Your task to perform on an android device: add a contact Image 0: 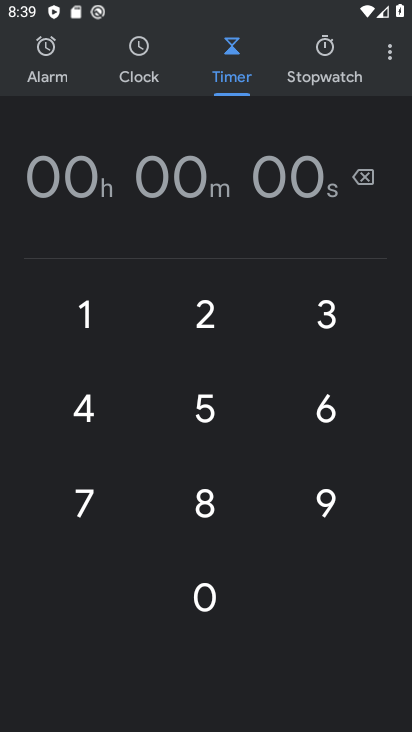
Step 0: press home button
Your task to perform on an android device: add a contact Image 1: 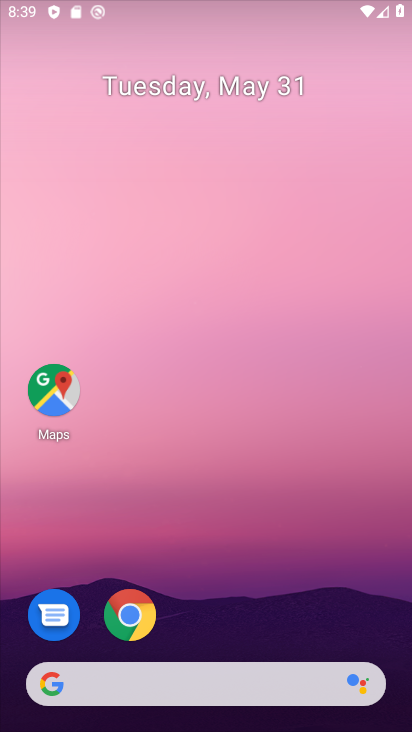
Step 1: drag from (323, 616) to (295, 170)
Your task to perform on an android device: add a contact Image 2: 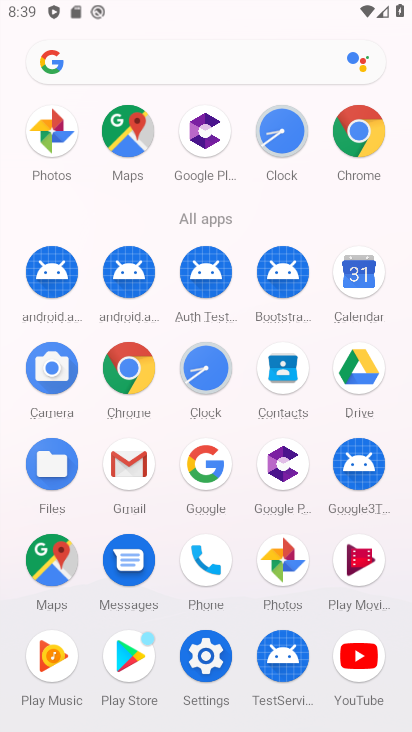
Step 2: click (289, 368)
Your task to perform on an android device: add a contact Image 3: 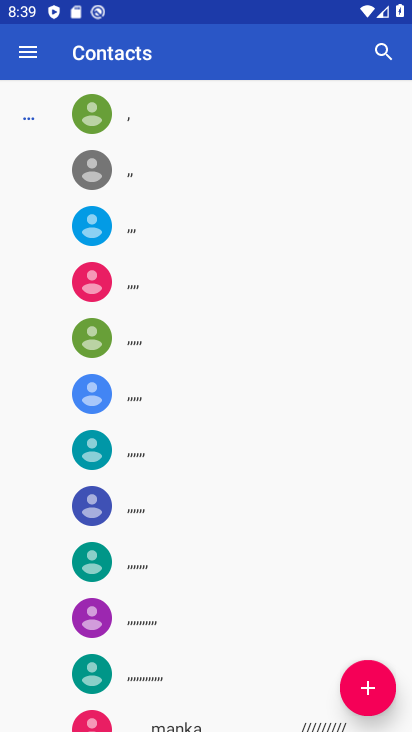
Step 3: click (358, 681)
Your task to perform on an android device: add a contact Image 4: 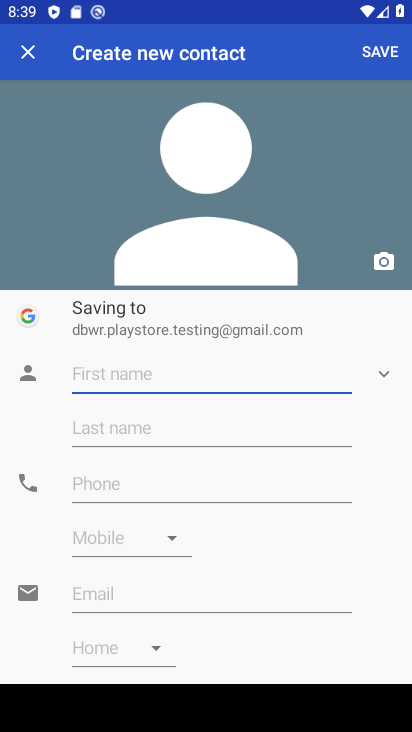
Step 4: click (111, 373)
Your task to perform on an android device: add a contact Image 5: 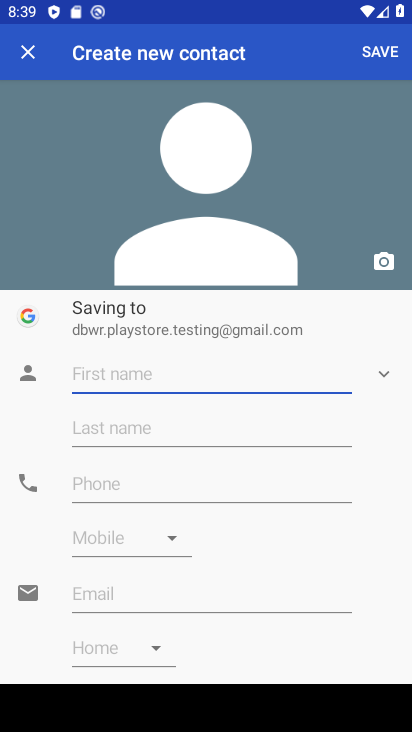
Step 5: type "vbb v bvv b vbbv v "
Your task to perform on an android device: add a contact Image 6: 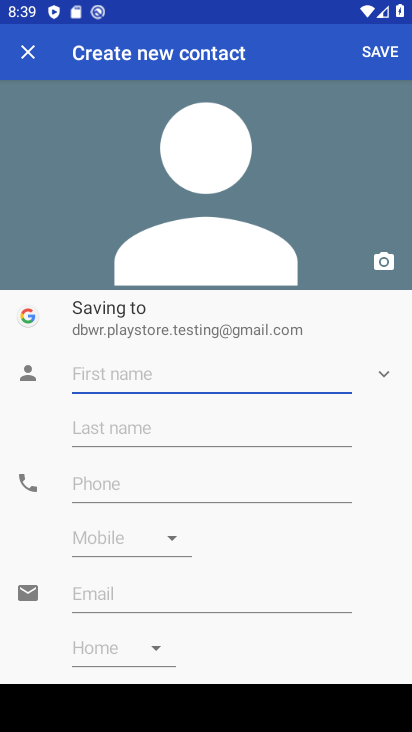
Step 6: click (157, 492)
Your task to perform on an android device: add a contact Image 7: 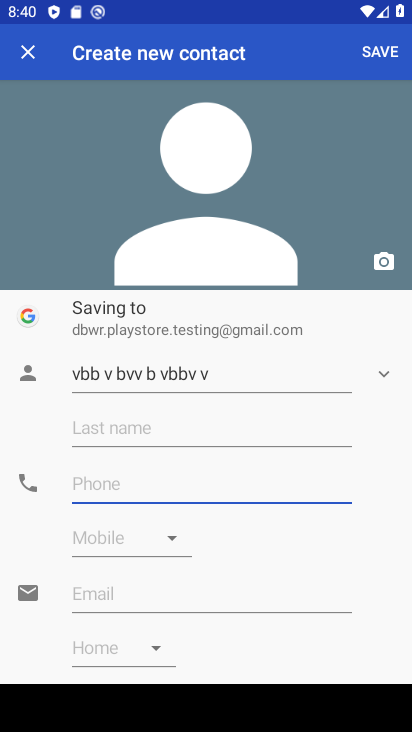
Step 7: type "22345564666"
Your task to perform on an android device: add a contact Image 8: 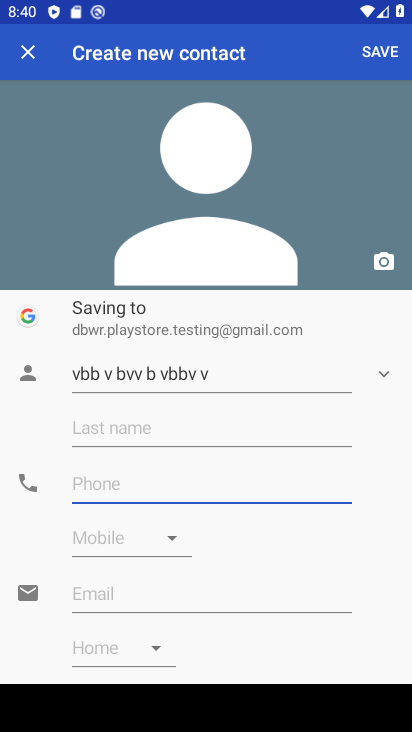
Step 8: click (141, 489)
Your task to perform on an android device: add a contact Image 9: 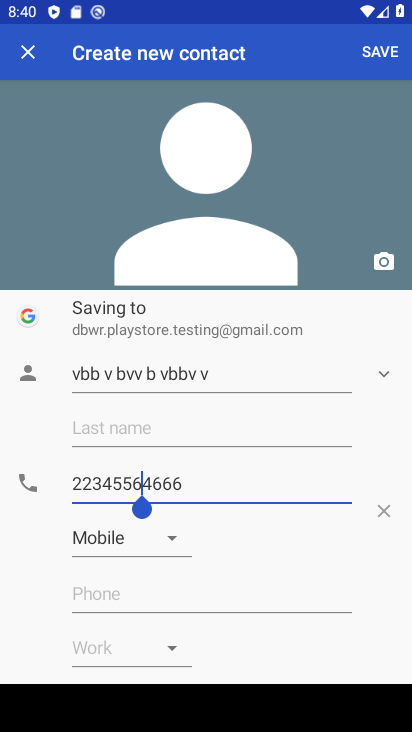
Step 9: click (387, 47)
Your task to perform on an android device: add a contact Image 10: 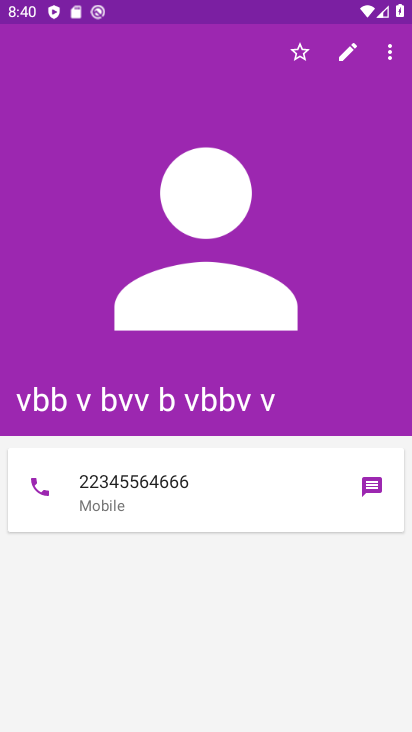
Step 10: task complete